Your task to perform on an android device: Clear all items from cart on newegg. Image 0: 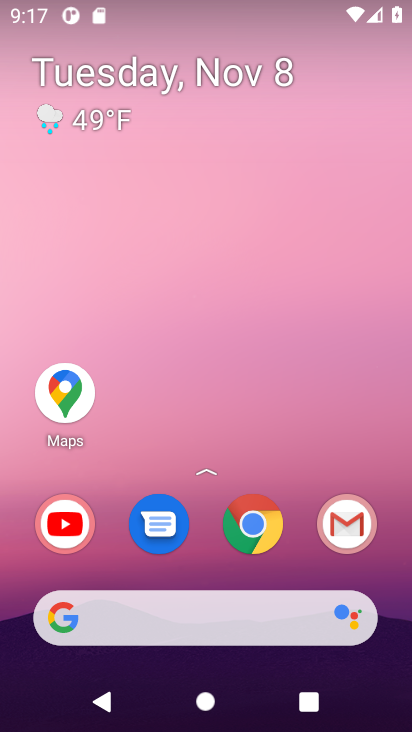
Step 0: click (254, 520)
Your task to perform on an android device: Clear all items from cart on newegg. Image 1: 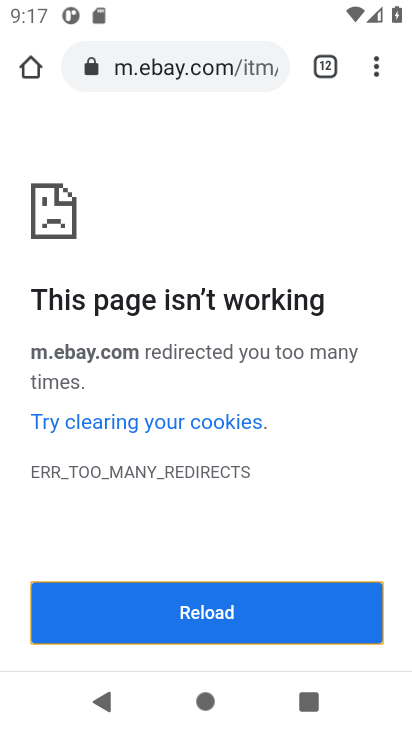
Step 1: click (164, 72)
Your task to perform on an android device: Clear all items from cart on newegg. Image 2: 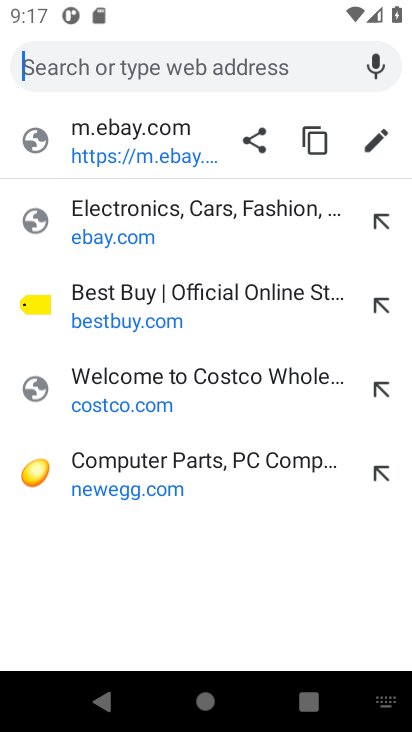
Step 2: click (119, 475)
Your task to perform on an android device: Clear all items from cart on newegg. Image 3: 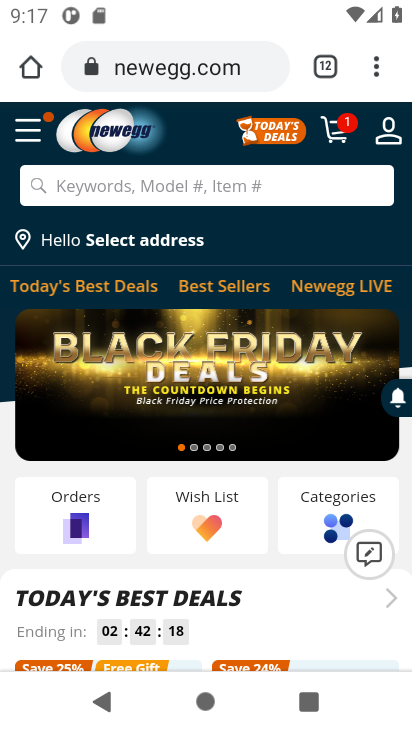
Step 3: click (322, 128)
Your task to perform on an android device: Clear all items from cart on newegg. Image 4: 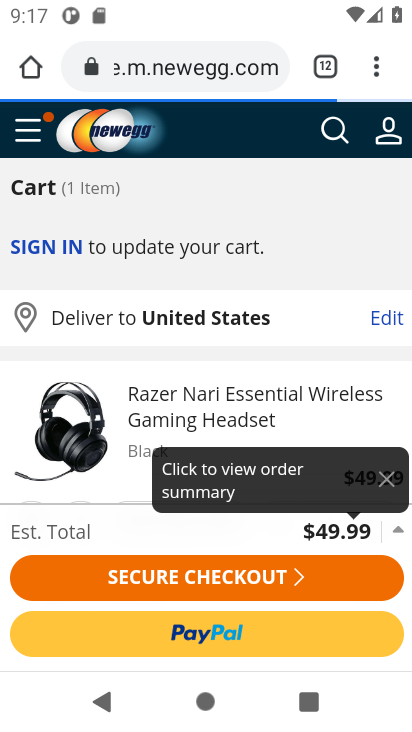
Step 4: drag from (119, 405) to (116, 215)
Your task to perform on an android device: Clear all items from cart on newegg. Image 5: 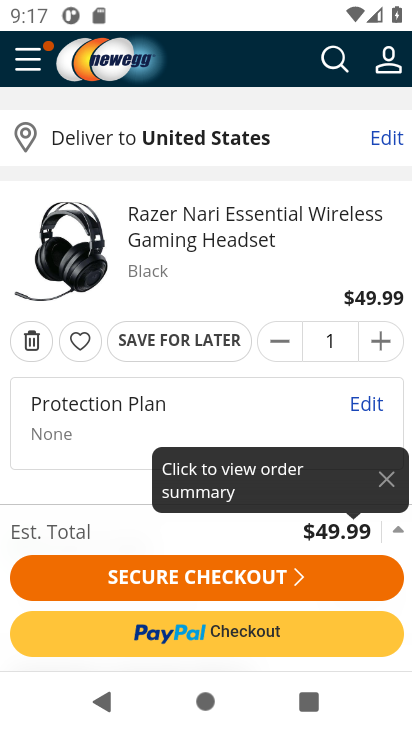
Step 5: click (32, 343)
Your task to perform on an android device: Clear all items from cart on newegg. Image 6: 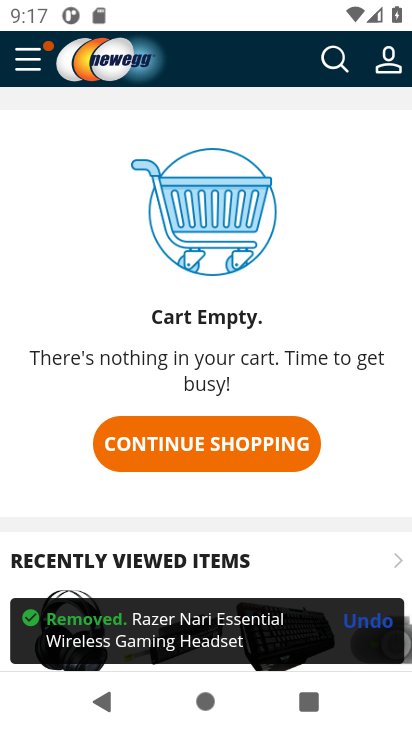
Step 6: task complete